Your task to perform on an android device: change the upload size in google photos Image 0: 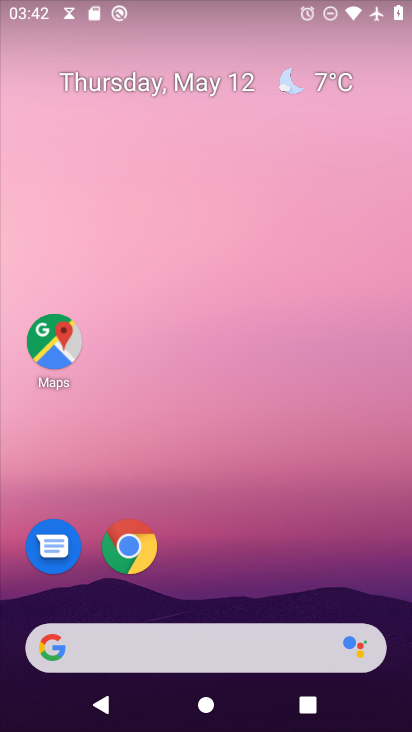
Step 0: drag from (155, 654) to (263, 254)
Your task to perform on an android device: change the upload size in google photos Image 1: 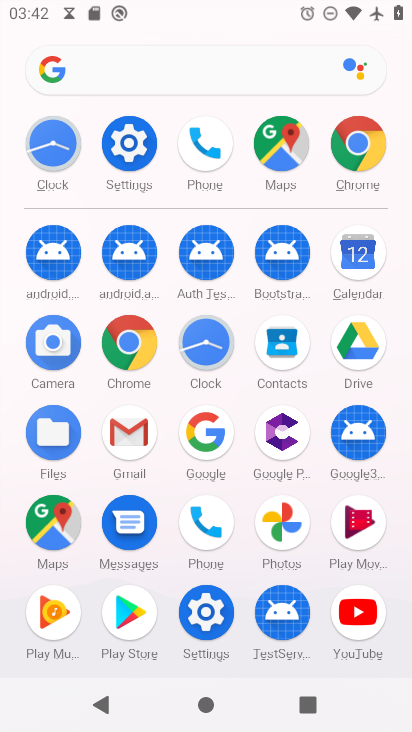
Step 1: click (288, 533)
Your task to perform on an android device: change the upload size in google photos Image 2: 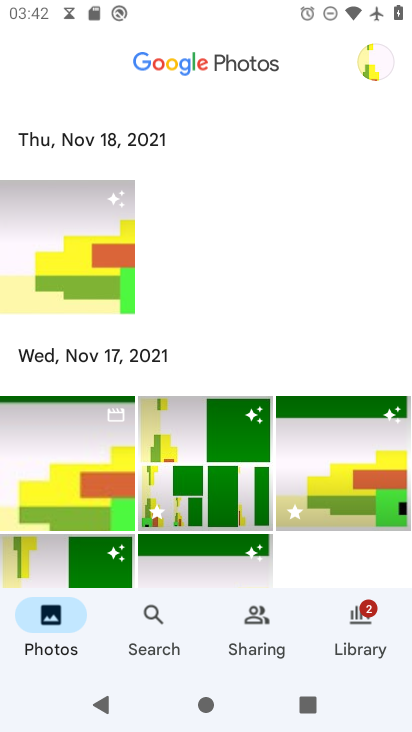
Step 2: click (381, 68)
Your task to perform on an android device: change the upload size in google photos Image 3: 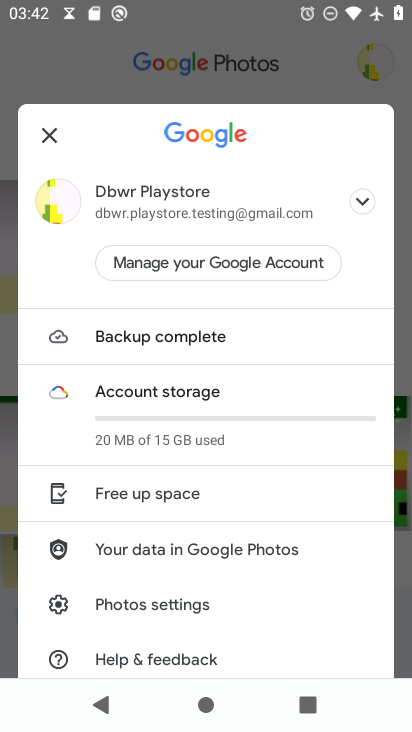
Step 3: click (171, 608)
Your task to perform on an android device: change the upload size in google photos Image 4: 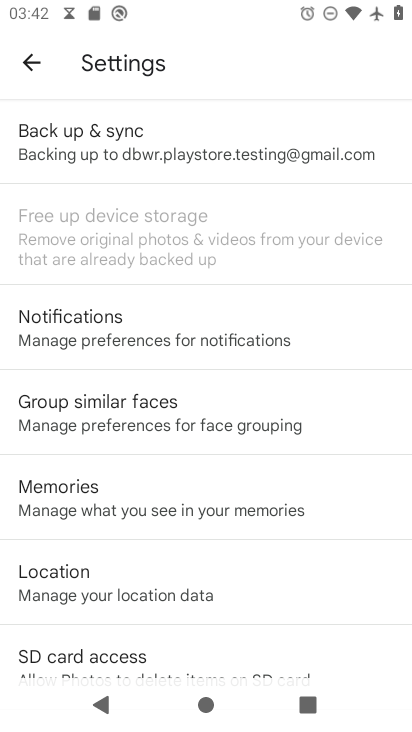
Step 4: click (241, 157)
Your task to perform on an android device: change the upload size in google photos Image 5: 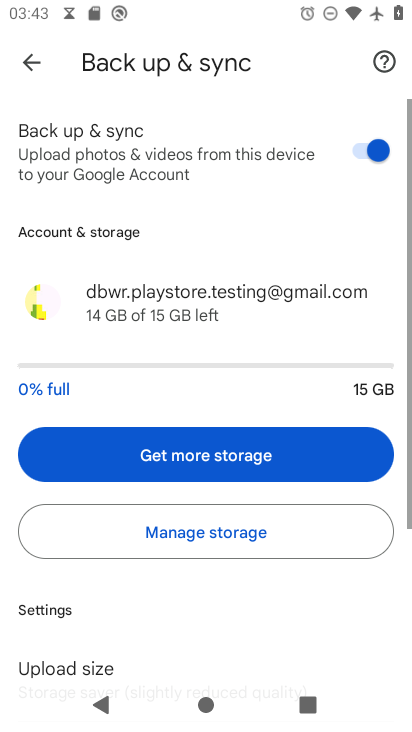
Step 5: drag from (234, 615) to (295, 271)
Your task to perform on an android device: change the upload size in google photos Image 6: 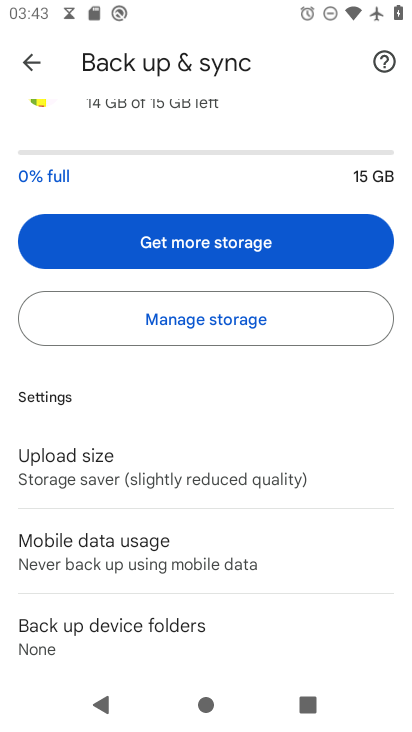
Step 6: click (180, 465)
Your task to perform on an android device: change the upload size in google photos Image 7: 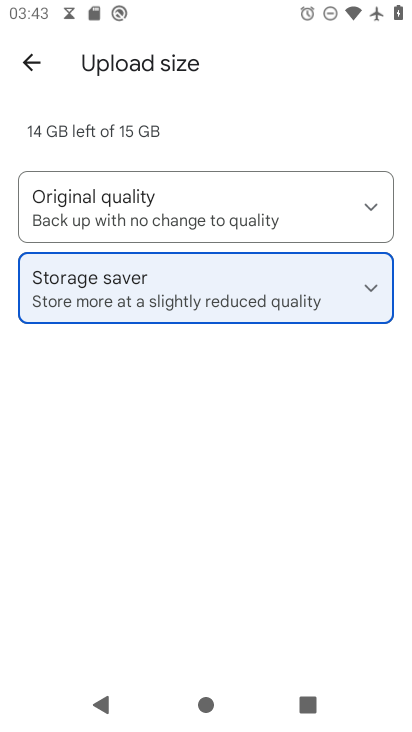
Step 7: click (364, 208)
Your task to perform on an android device: change the upload size in google photos Image 8: 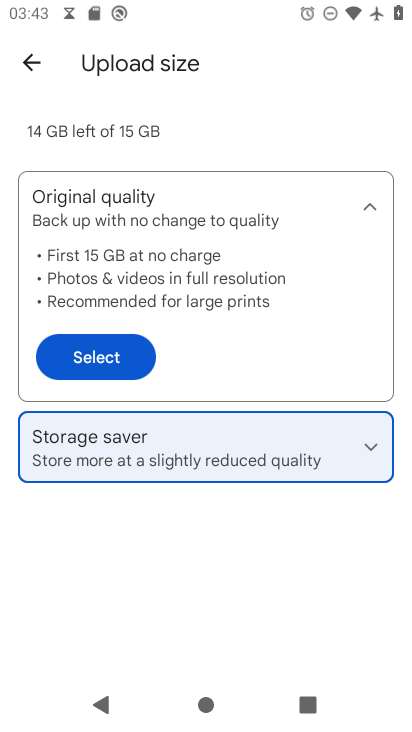
Step 8: click (113, 355)
Your task to perform on an android device: change the upload size in google photos Image 9: 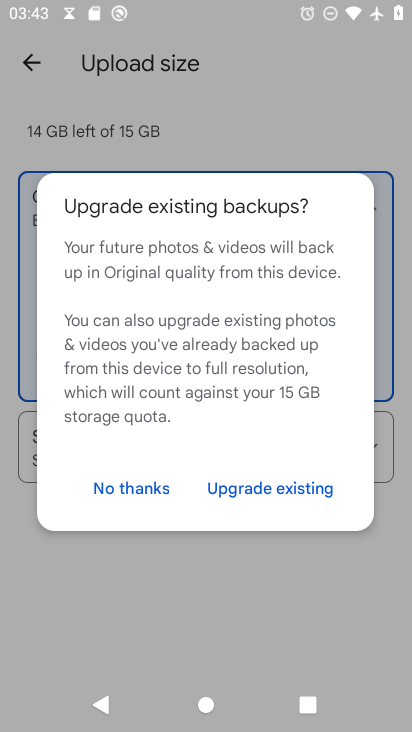
Step 9: click (216, 492)
Your task to perform on an android device: change the upload size in google photos Image 10: 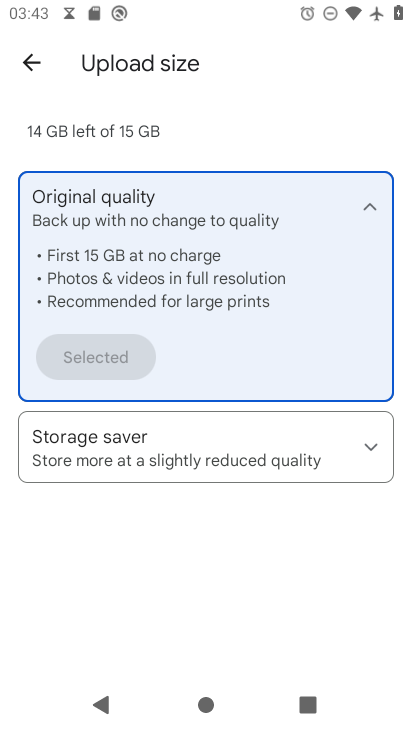
Step 10: task complete